Your task to perform on an android device: Open internet settings Image 0: 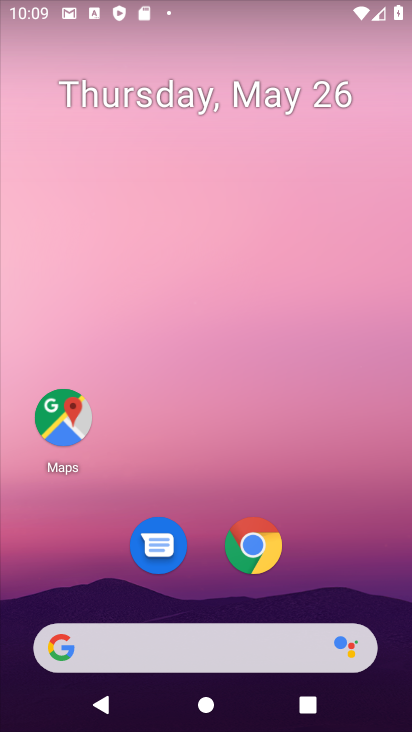
Step 0: drag from (204, 2) to (131, 333)
Your task to perform on an android device: Open internet settings Image 1: 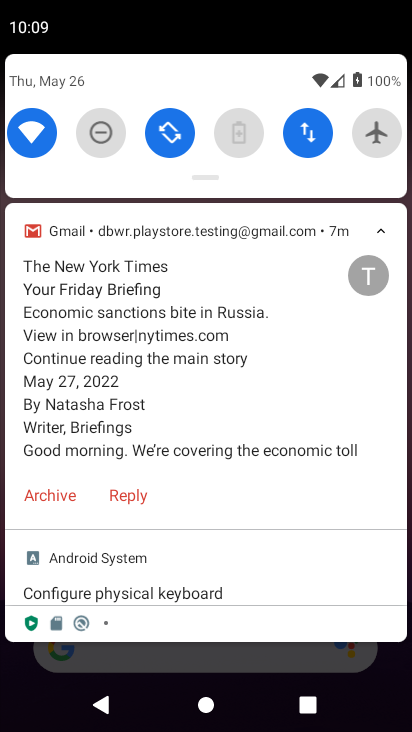
Step 1: task complete